Your task to perform on an android device: change alarm snooze length Image 0: 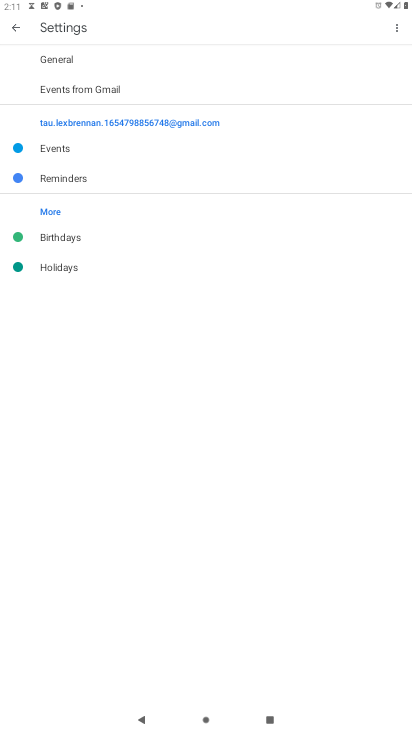
Step 0: press home button
Your task to perform on an android device: change alarm snooze length Image 1: 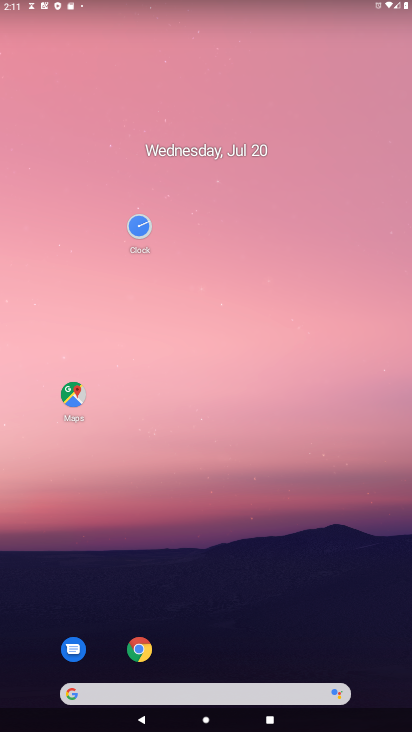
Step 1: click (126, 220)
Your task to perform on an android device: change alarm snooze length Image 2: 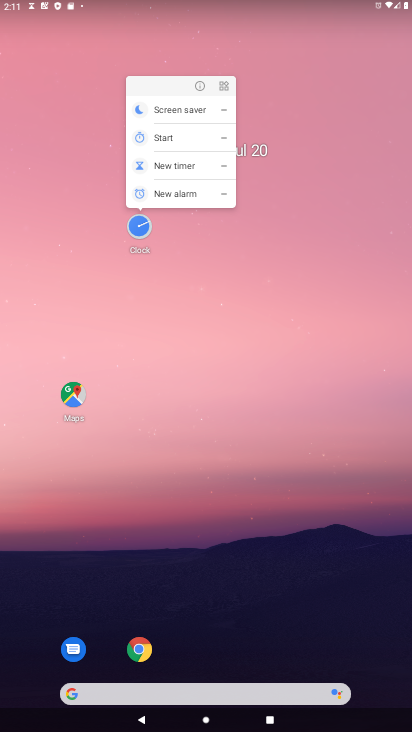
Step 2: click (138, 234)
Your task to perform on an android device: change alarm snooze length Image 3: 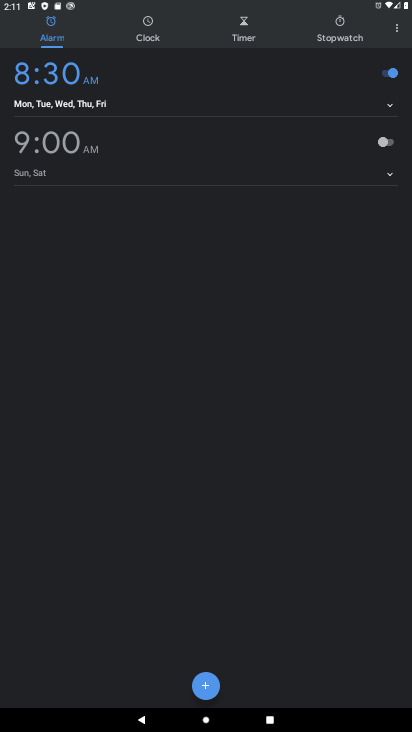
Step 3: click (399, 24)
Your task to perform on an android device: change alarm snooze length Image 4: 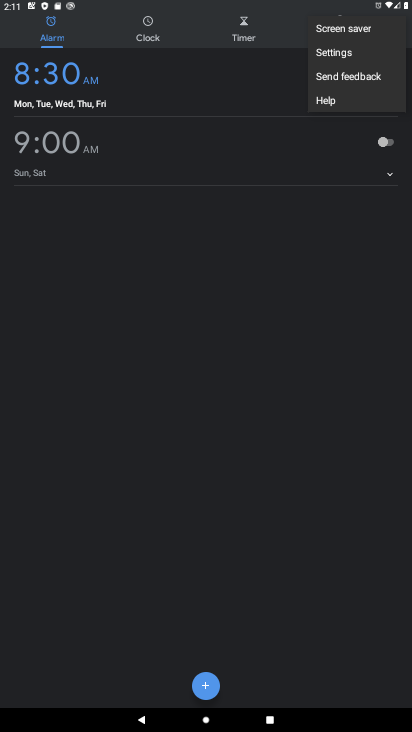
Step 4: click (354, 45)
Your task to perform on an android device: change alarm snooze length Image 5: 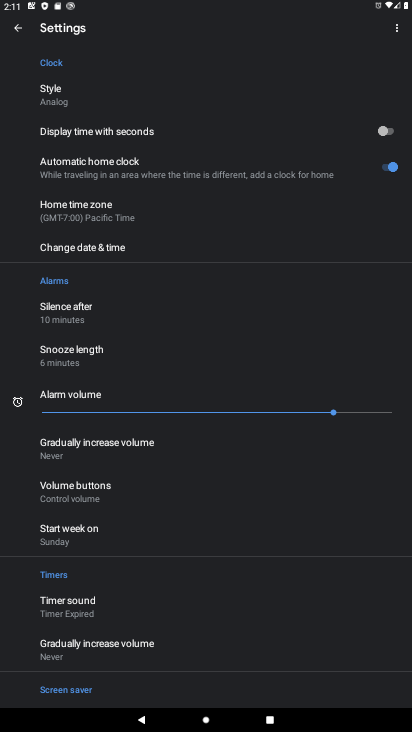
Step 5: click (143, 353)
Your task to perform on an android device: change alarm snooze length Image 6: 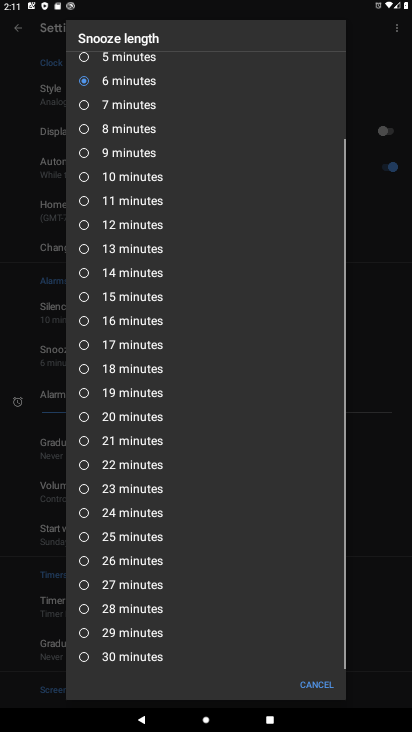
Step 6: click (131, 112)
Your task to perform on an android device: change alarm snooze length Image 7: 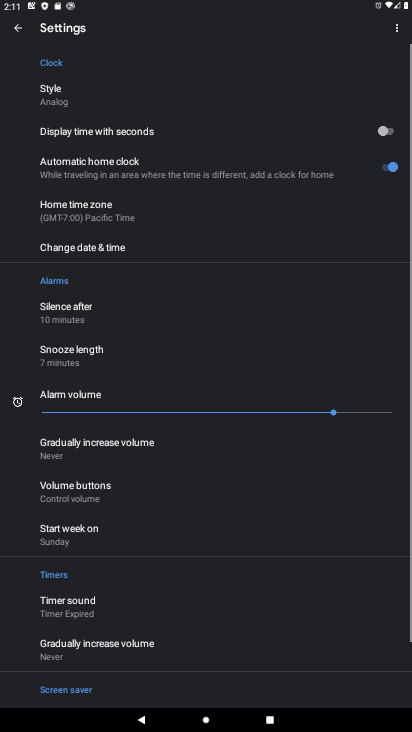
Step 7: task complete